Your task to perform on an android device: Show me popular games on the Play Store Image 0: 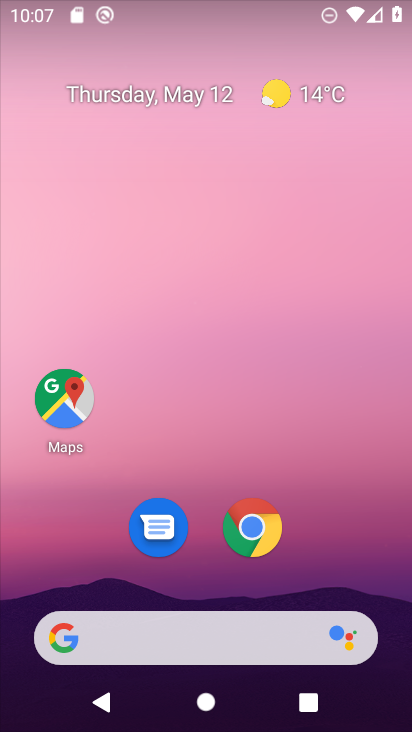
Step 0: drag from (323, 552) to (337, 121)
Your task to perform on an android device: Show me popular games on the Play Store Image 1: 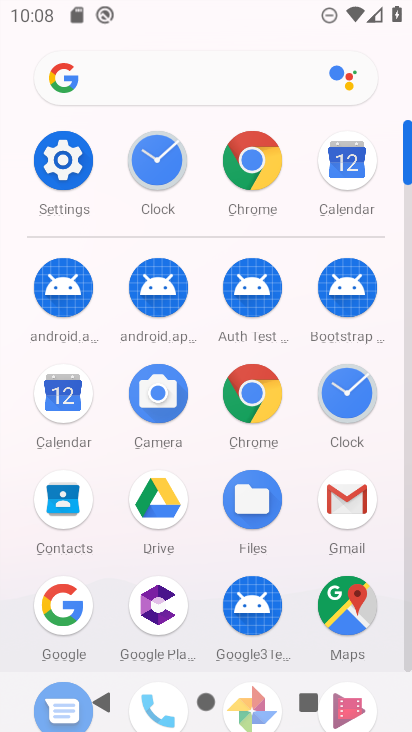
Step 1: click (402, 655)
Your task to perform on an android device: Show me popular games on the Play Store Image 2: 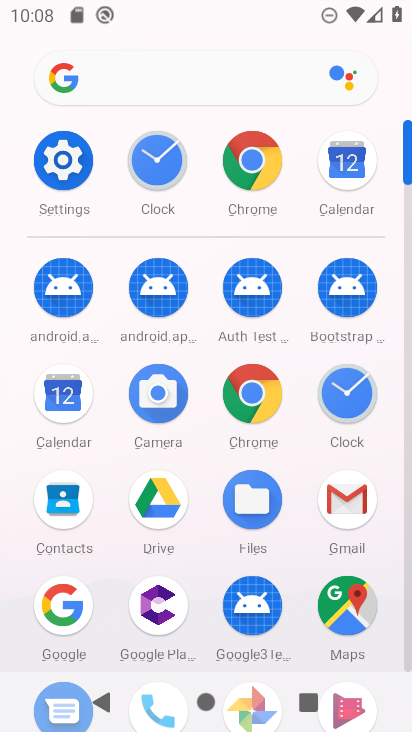
Step 2: click (408, 655)
Your task to perform on an android device: Show me popular games on the Play Store Image 3: 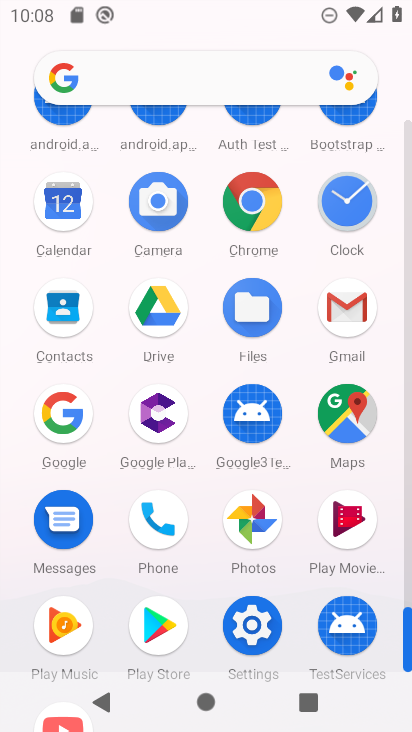
Step 3: click (174, 636)
Your task to perform on an android device: Show me popular games on the Play Store Image 4: 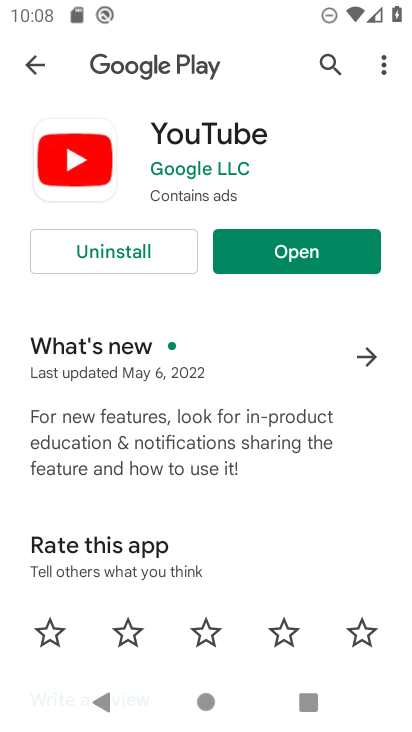
Step 4: click (282, 256)
Your task to perform on an android device: Show me popular games on the Play Store Image 5: 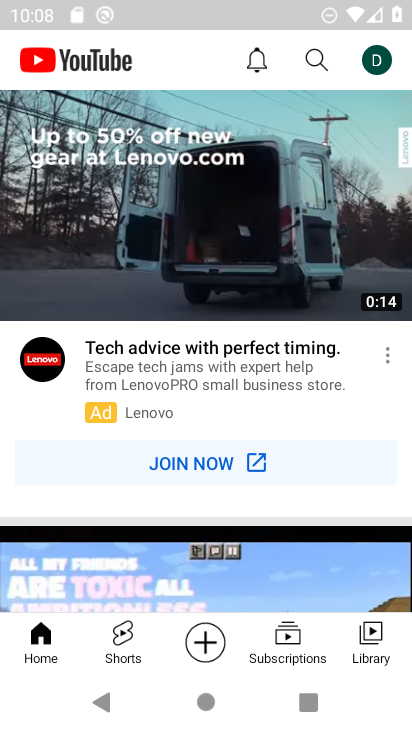
Step 5: press back button
Your task to perform on an android device: Show me popular games on the Play Store Image 6: 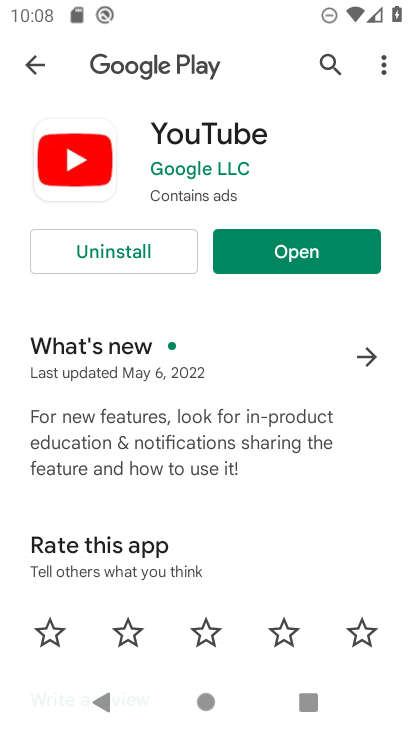
Step 6: press home button
Your task to perform on an android device: Show me popular games on the Play Store Image 7: 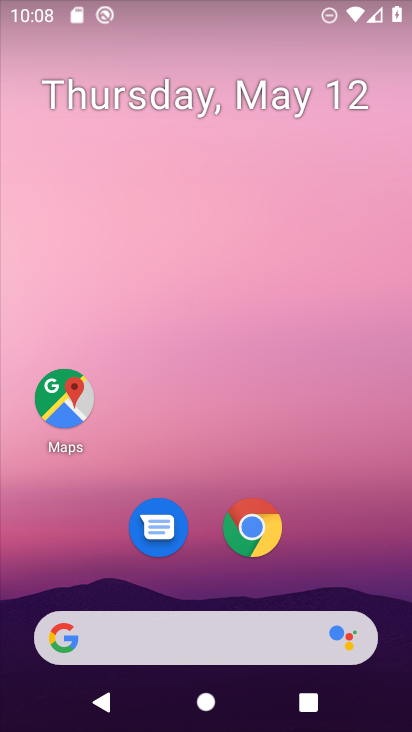
Step 7: drag from (324, 542) to (335, 194)
Your task to perform on an android device: Show me popular games on the Play Store Image 8: 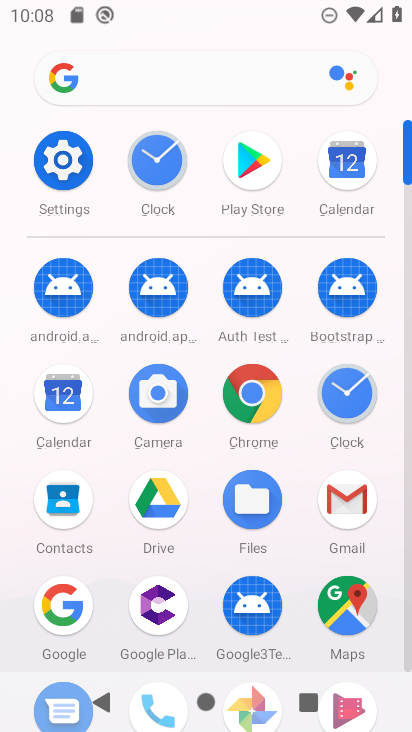
Step 8: click (410, 659)
Your task to perform on an android device: Show me popular games on the Play Store Image 9: 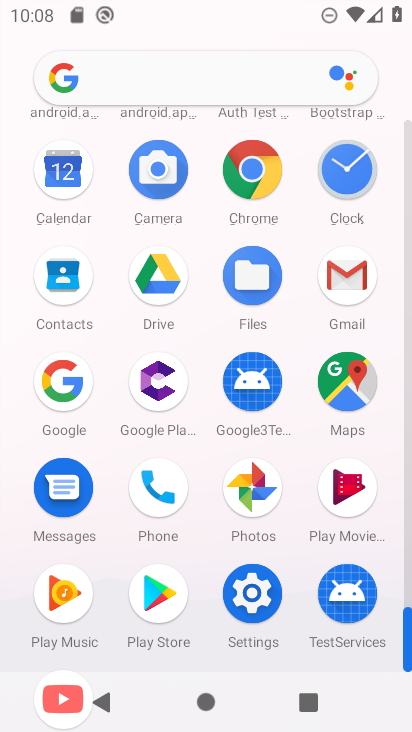
Step 9: click (172, 614)
Your task to perform on an android device: Show me popular games on the Play Store Image 10: 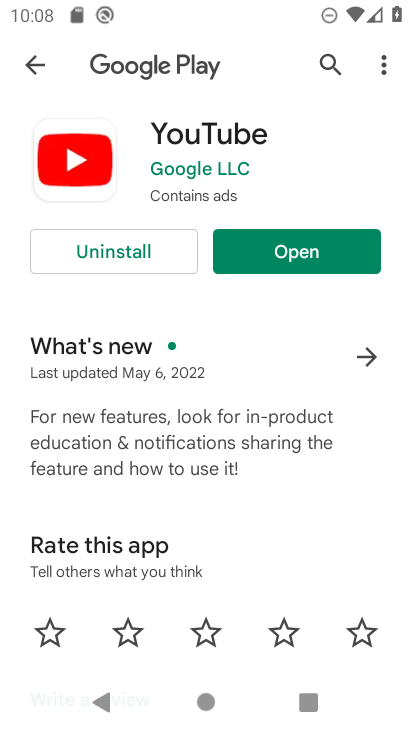
Step 10: click (32, 73)
Your task to perform on an android device: Show me popular games on the Play Store Image 11: 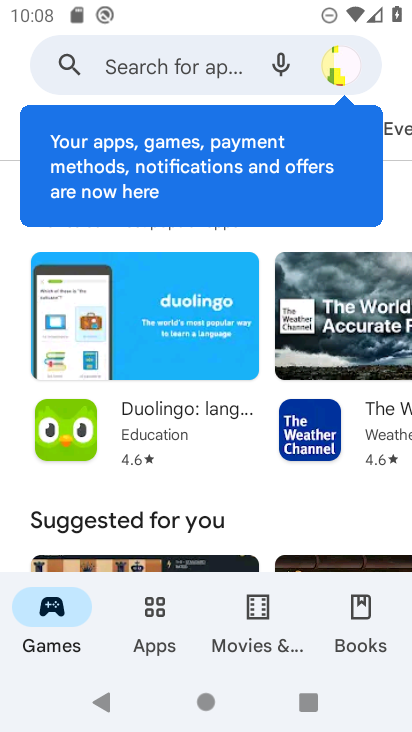
Step 11: task complete